Your task to perform on an android device: see sites visited before in the chrome app Image 0: 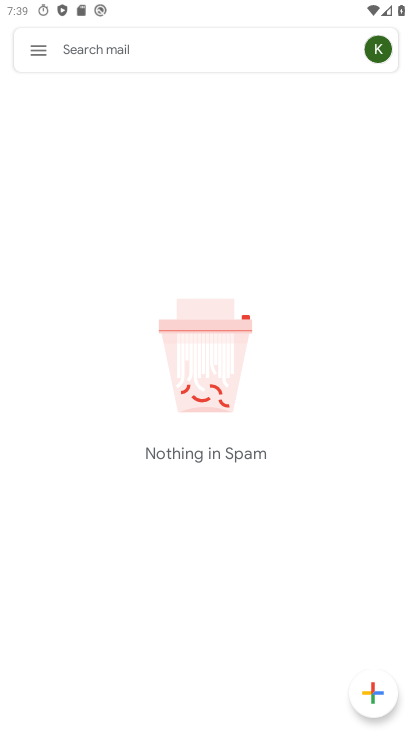
Step 0: press home button
Your task to perform on an android device: see sites visited before in the chrome app Image 1: 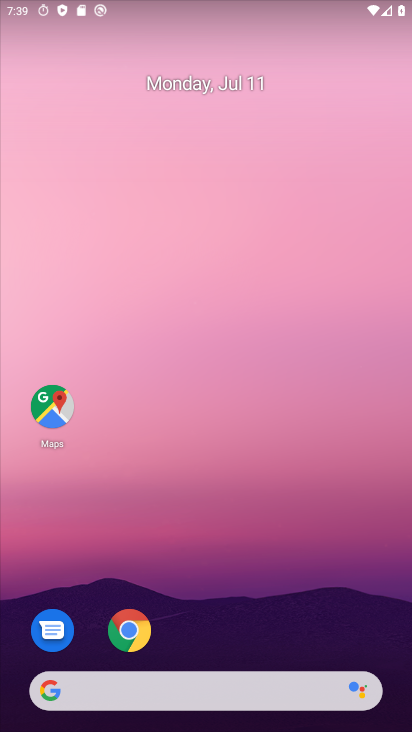
Step 1: click (122, 634)
Your task to perform on an android device: see sites visited before in the chrome app Image 2: 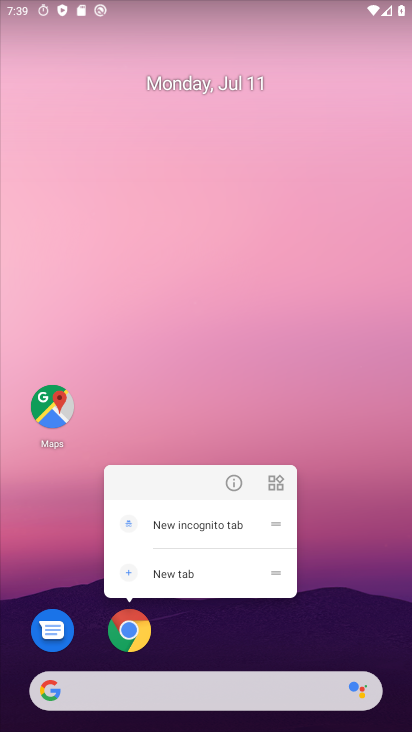
Step 2: click (138, 622)
Your task to perform on an android device: see sites visited before in the chrome app Image 3: 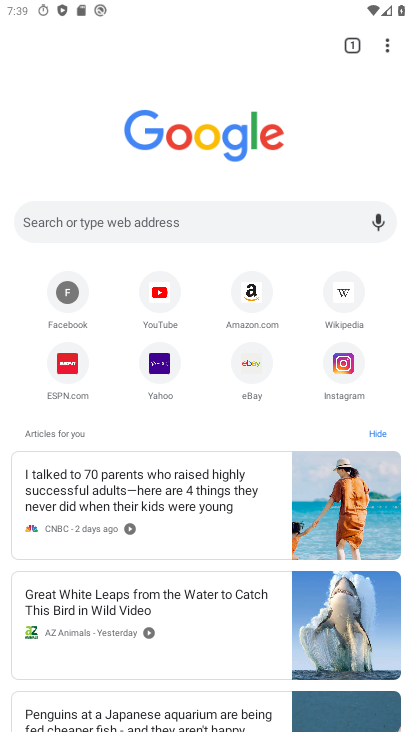
Step 3: task complete